Your task to perform on an android device: turn smart compose on in the gmail app Image 0: 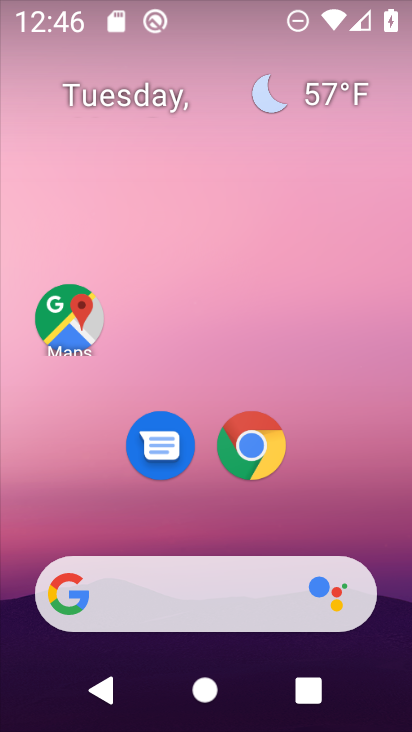
Step 0: drag from (373, 544) to (367, 188)
Your task to perform on an android device: turn smart compose on in the gmail app Image 1: 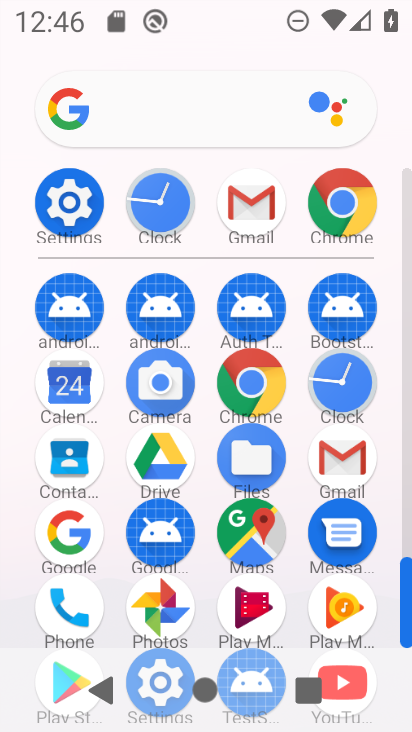
Step 1: drag from (389, 510) to (396, 287)
Your task to perform on an android device: turn smart compose on in the gmail app Image 2: 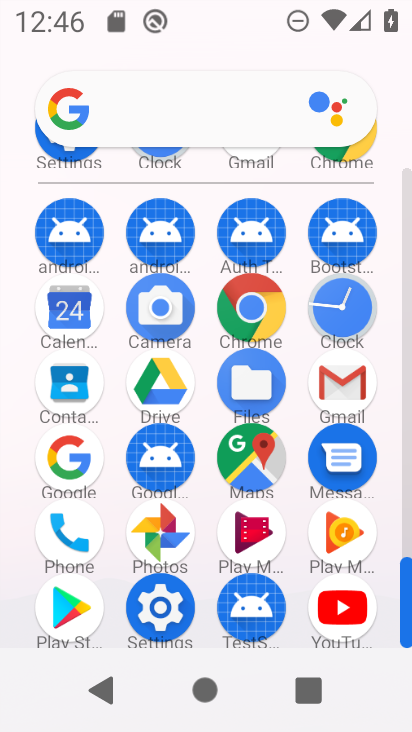
Step 2: drag from (388, 256) to (378, 407)
Your task to perform on an android device: turn smart compose on in the gmail app Image 3: 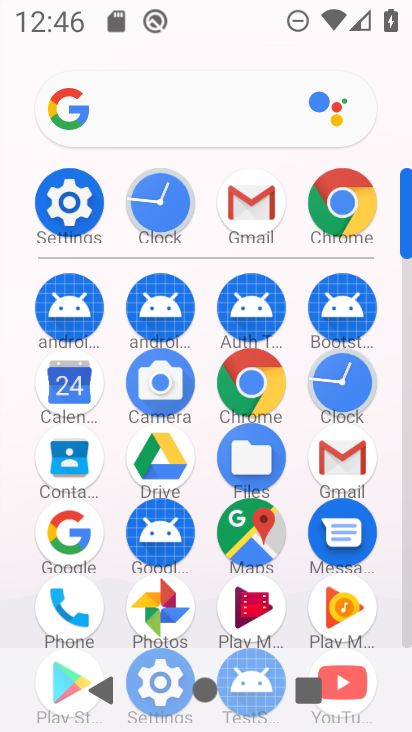
Step 3: click (354, 470)
Your task to perform on an android device: turn smart compose on in the gmail app Image 4: 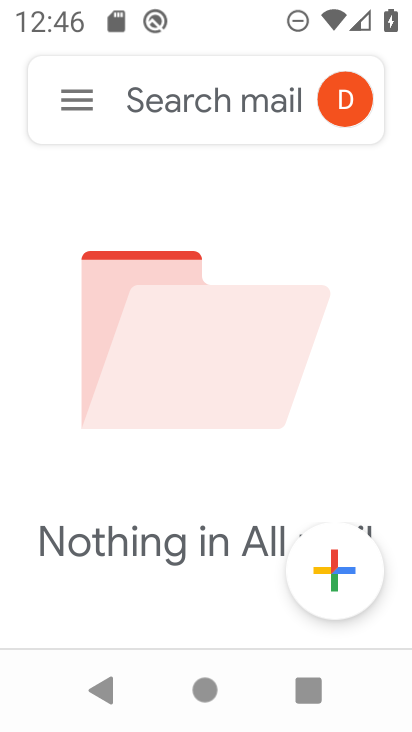
Step 4: click (78, 99)
Your task to perform on an android device: turn smart compose on in the gmail app Image 5: 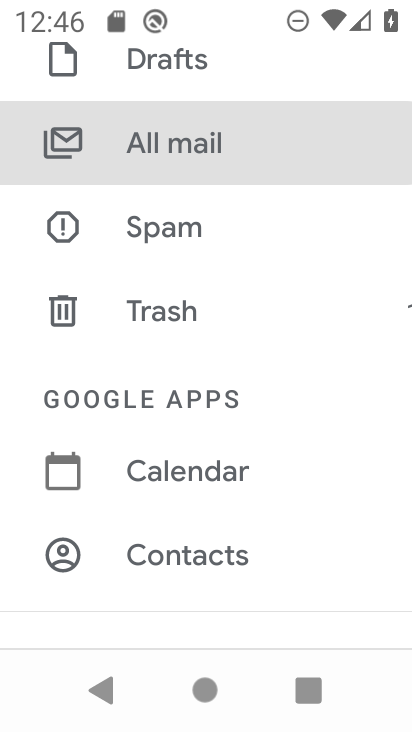
Step 5: drag from (303, 529) to (295, 307)
Your task to perform on an android device: turn smart compose on in the gmail app Image 6: 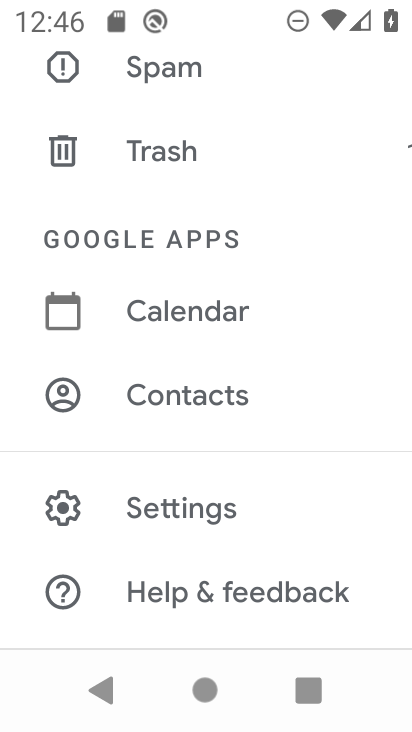
Step 6: drag from (318, 553) to (315, 374)
Your task to perform on an android device: turn smart compose on in the gmail app Image 7: 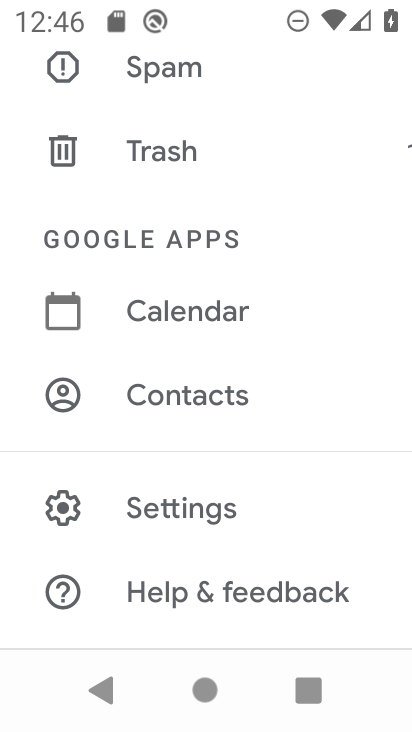
Step 7: drag from (332, 559) to (330, 308)
Your task to perform on an android device: turn smart compose on in the gmail app Image 8: 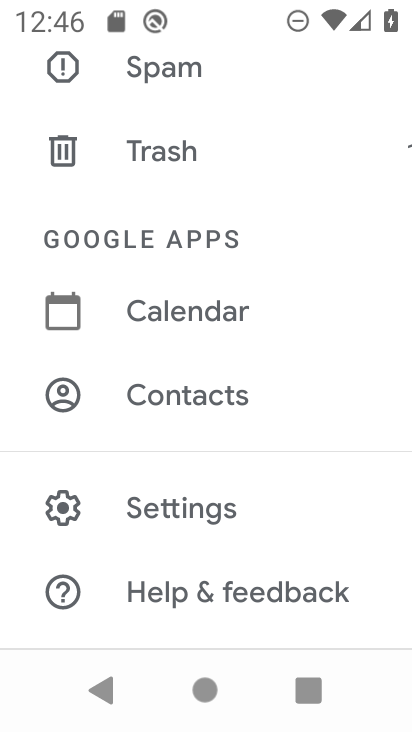
Step 8: click (207, 510)
Your task to perform on an android device: turn smart compose on in the gmail app Image 9: 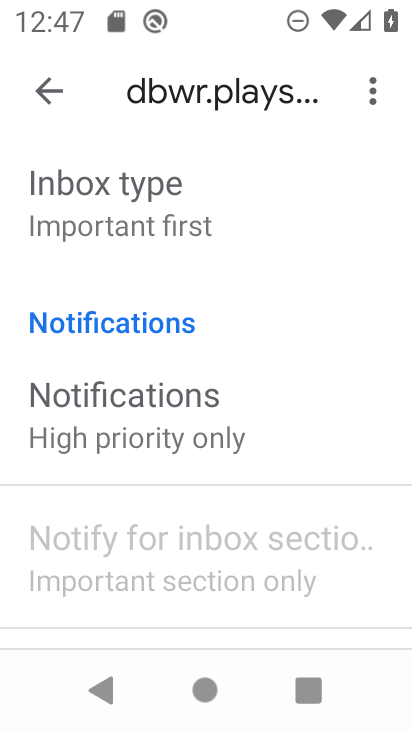
Step 9: task complete